Your task to perform on an android device: Open Google Chrome and click the shortcut for Amazon.com Image 0: 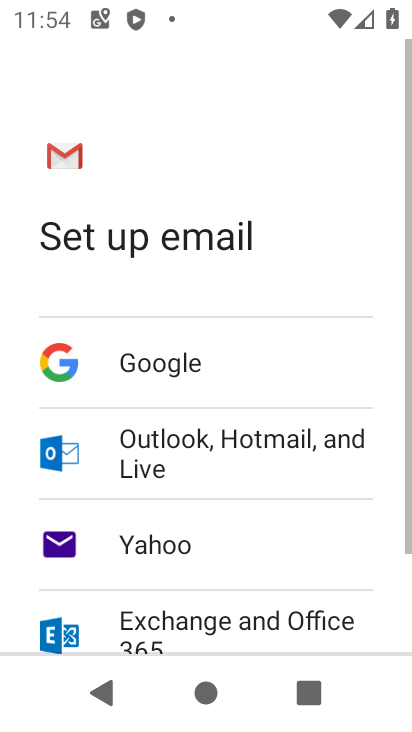
Step 0: press home button
Your task to perform on an android device: Open Google Chrome and click the shortcut for Amazon.com Image 1: 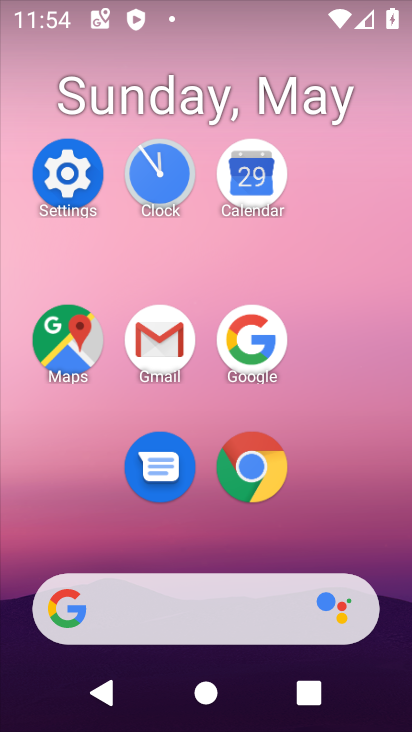
Step 1: click (272, 485)
Your task to perform on an android device: Open Google Chrome and click the shortcut for Amazon.com Image 2: 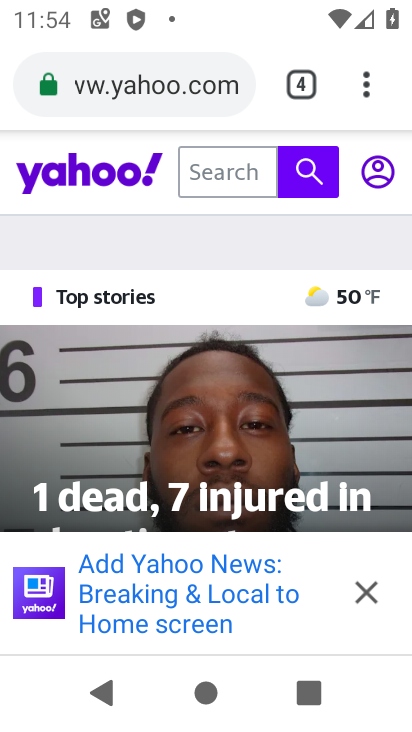
Step 2: click (287, 77)
Your task to perform on an android device: Open Google Chrome and click the shortcut for Amazon.com Image 3: 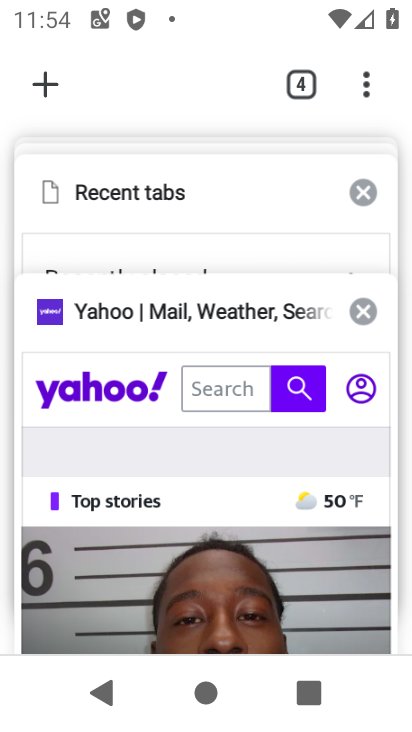
Step 3: drag from (166, 236) to (187, 589)
Your task to perform on an android device: Open Google Chrome and click the shortcut for Amazon.com Image 4: 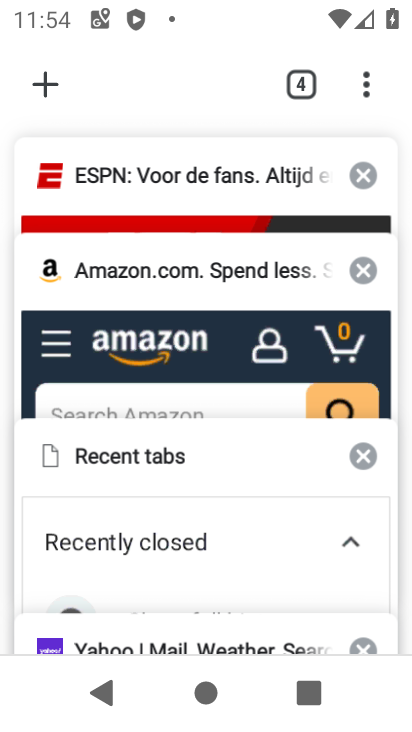
Step 4: click (181, 260)
Your task to perform on an android device: Open Google Chrome and click the shortcut for Amazon.com Image 5: 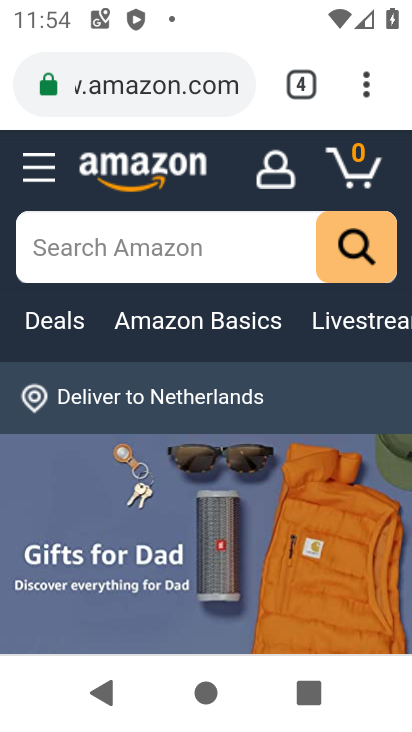
Step 5: click (377, 78)
Your task to perform on an android device: Open Google Chrome and click the shortcut for Amazon.com Image 6: 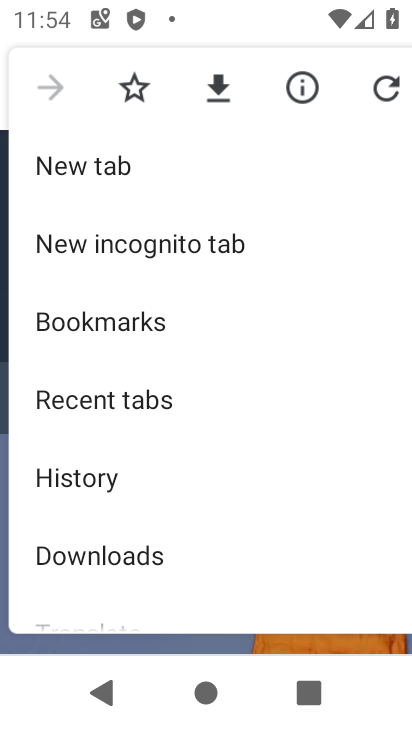
Step 6: drag from (204, 484) to (276, 148)
Your task to perform on an android device: Open Google Chrome and click the shortcut for Amazon.com Image 7: 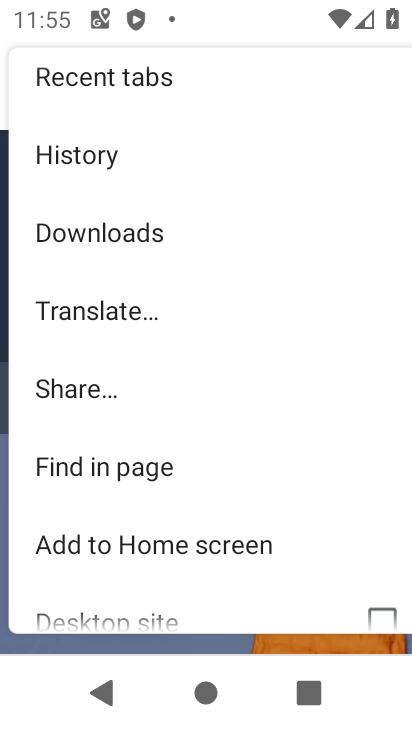
Step 7: click (265, 534)
Your task to perform on an android device: Open Google Chrome and click the shortcut for Amazon.com Image 8: 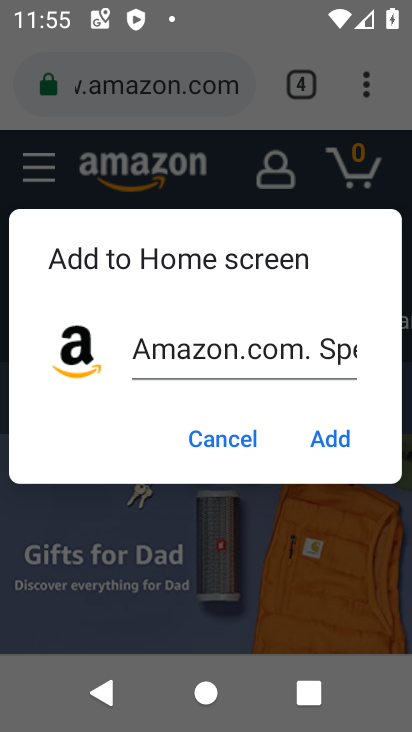
Step 8: click (356, 436)
Your task to perform on an android device: Open Google Chrome and click the shortcut for Amazon.com Image 9: 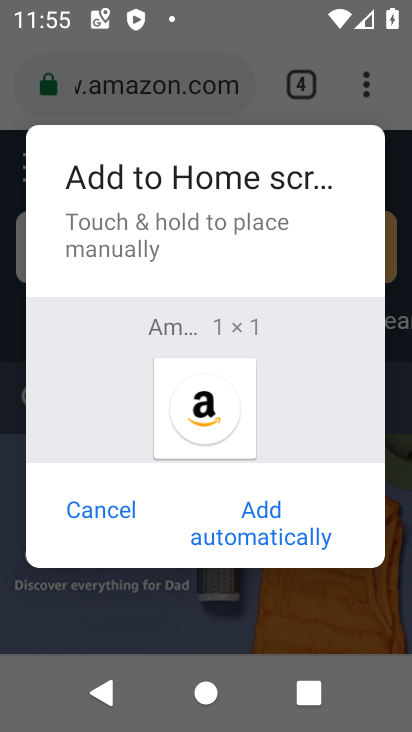
Step 9: click (214, 513)
Your task to perform on an android device: Open Google Chrome and click the shortcut for Amazon.com Image 10: 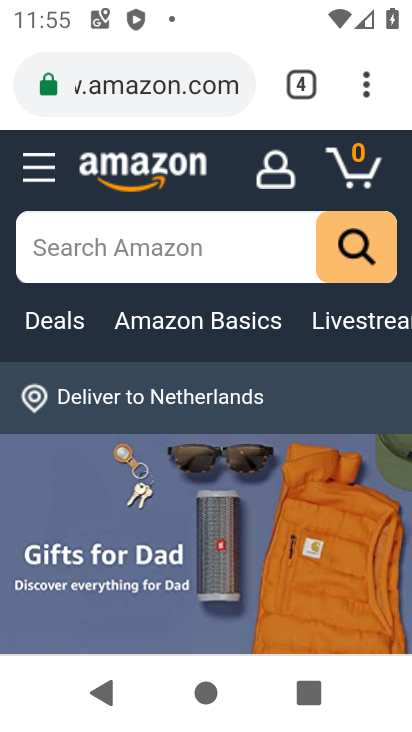
Step 10: task complete